Your task to perform on an android device: Open Google Chrome and open the bookmarks view Image 0: 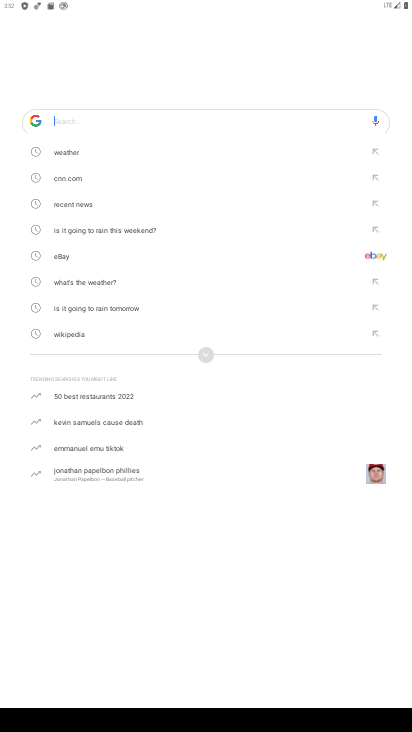
Step 0: press home button
Your task to perform on an android device: Open Google Chrome and open the bookmarks view Image 1: 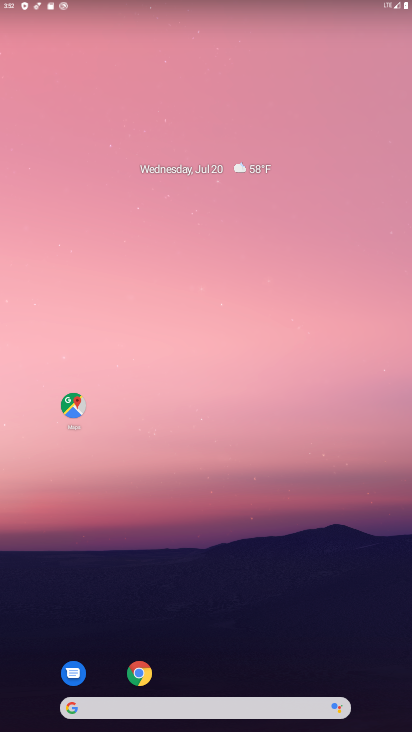
Step 1: click (142, 670)
Your task to perform on an android device: Open Google Chrome and open the bookmarks view Image 2: 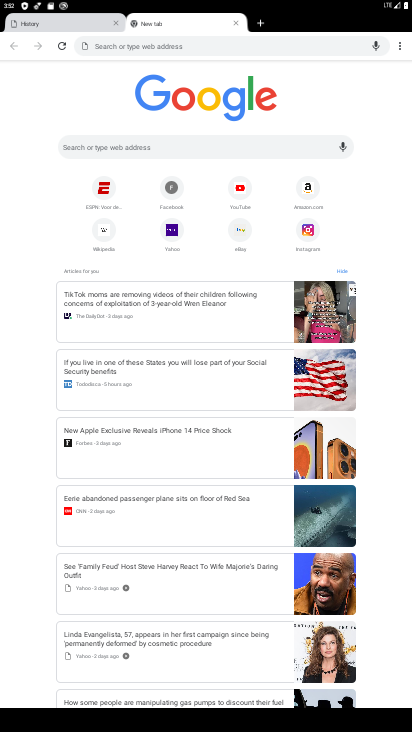
Step 2: click (399, 42)
Your task to perform on an android device: Open Google Chrome and open the bookmarks view Image 3: 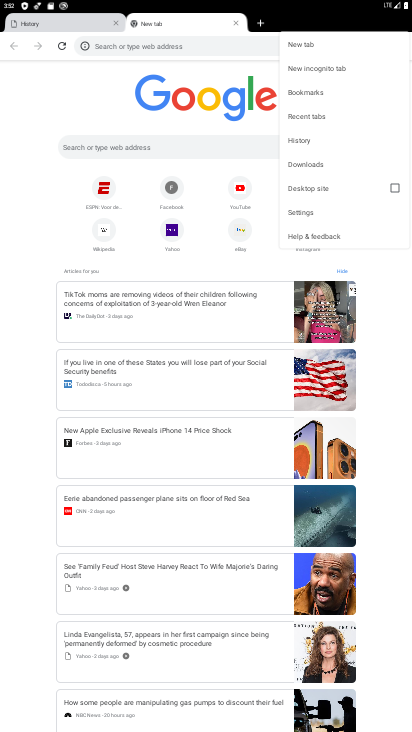
Step 3: click (322, 90)
Your task to perform on an android device: Open Google Chrome and open the bookmarks view Image 4: 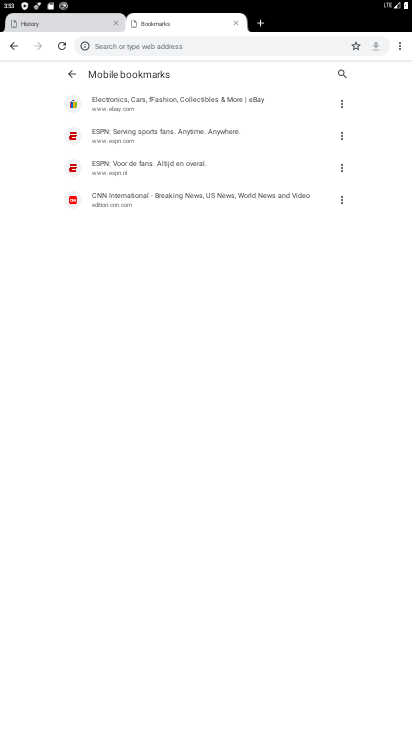
Step 4: task complete